Your task to perform on an android device: delete browsing data in the chrome app Image 0: 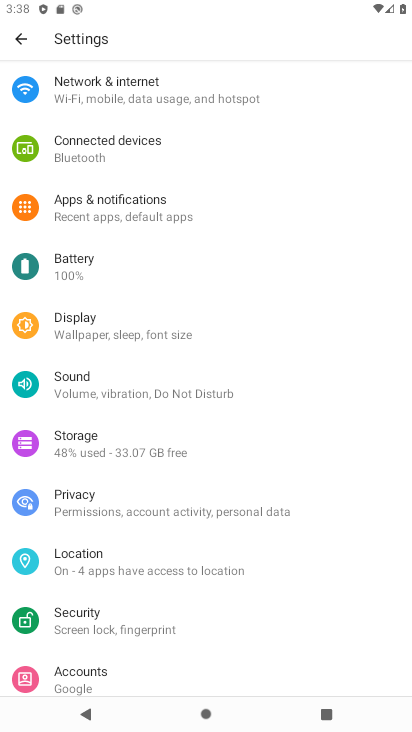
Step 0: press home button
Your task to perform on an android device: delete browsing data in the chrome app Image 1: 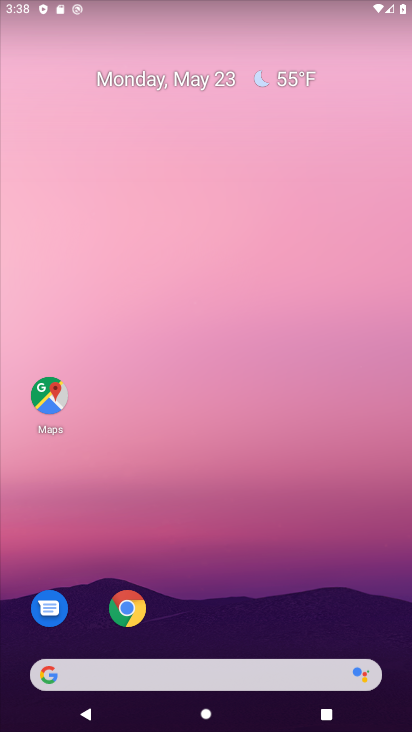
Step 1: click (113, 608)
Your task to perform on an android device: delete browsing data in the chrome app Image 2: 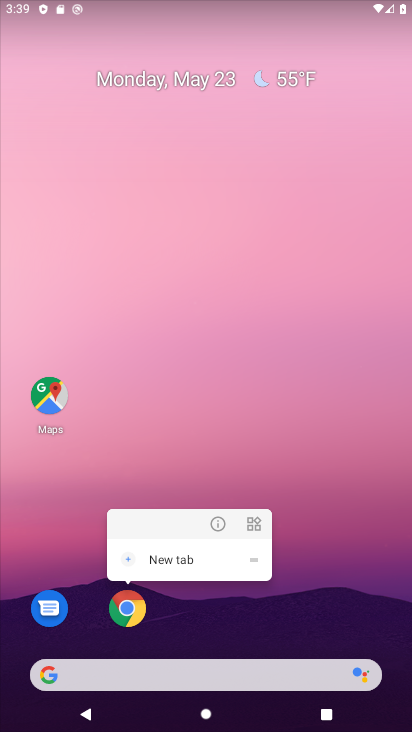
Step 2: click (129, 608)
Your task to perform on an android device: delete browsing data in the chrome app Image 3: 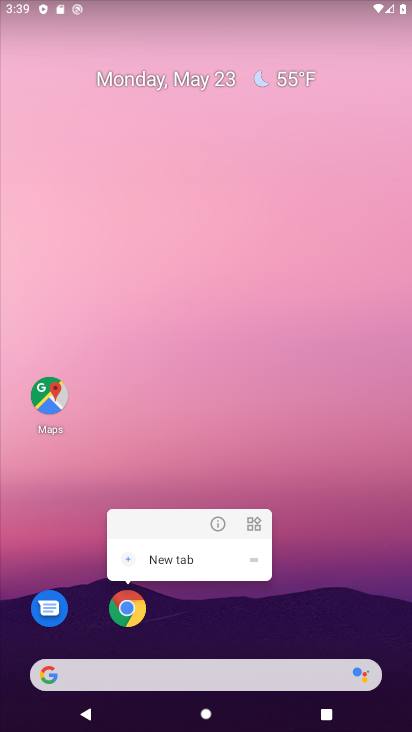
Step 3: click (124, 613)
Your task to perform on an android device: delete browsing data in the chrome app Image 4: 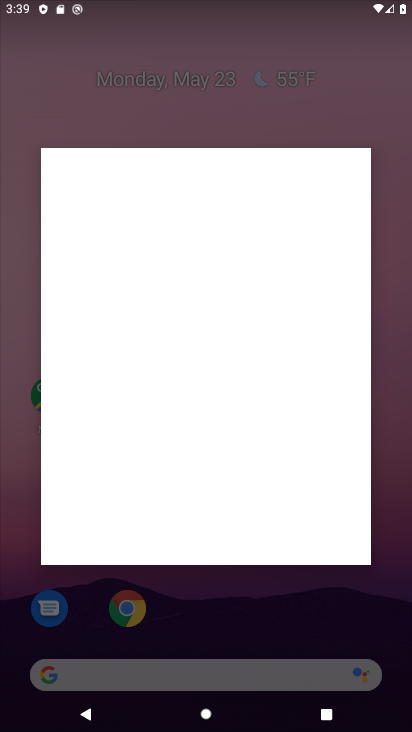
Step 4: click (408, 415)
Your task to perform on an android device: delete browsing data in the chrome app Image 5: 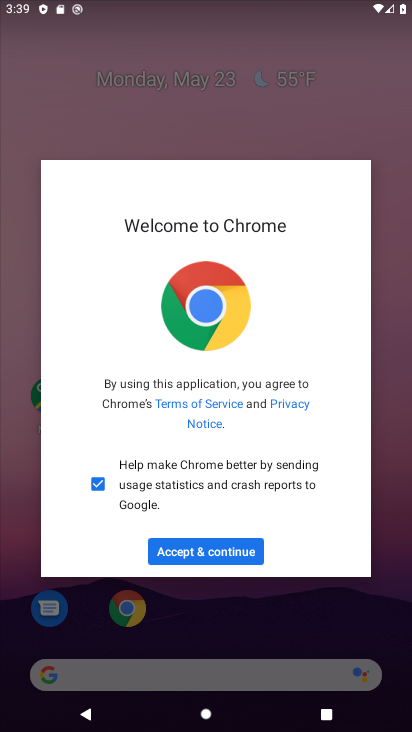
Step 5: press home button
Your task to perform on an android device: delete browsing data in the chrome app Image 6: 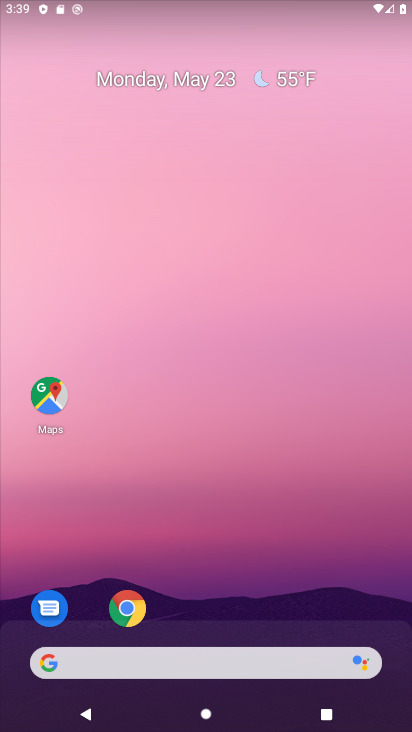
Step 6: click (136, 601)
Your task to perform on an android device: delete browsing data in the chrome app Image 7: 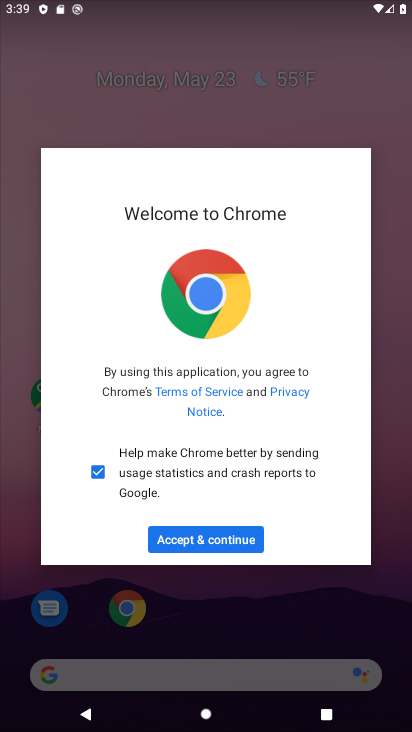
Step 7: click (235, 533)
Your task to perform on an android device: delete browsing data in the chrome app Image 8: 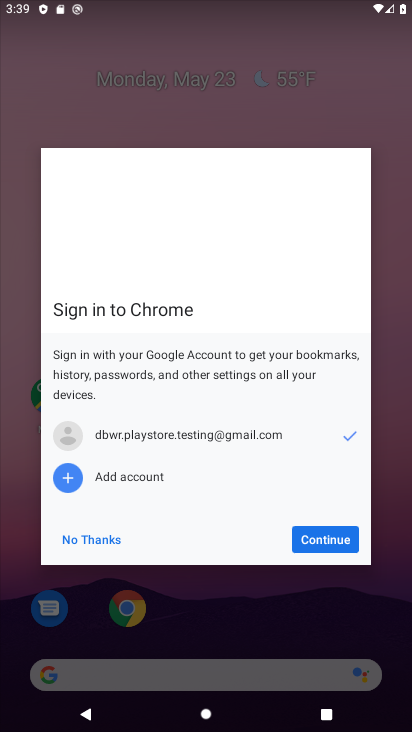
Step 8: click (76, 536)
Your task to perform on an android device: delete browsing data in the chrome app Image 9: 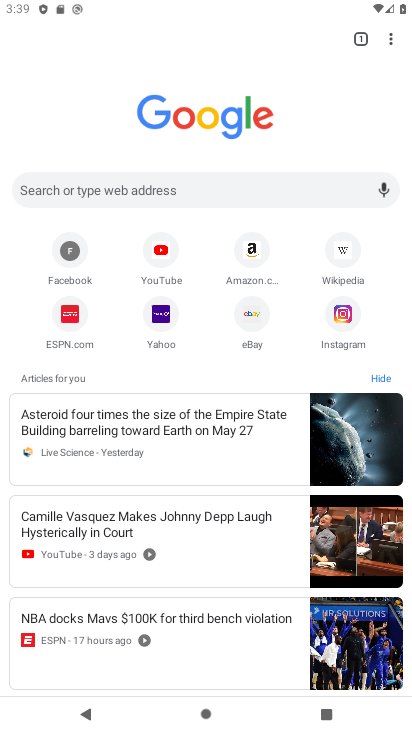
Step 9: click (390, 34)
Your task to perform on an android device: delete browsing data in the chrome app Image 10: 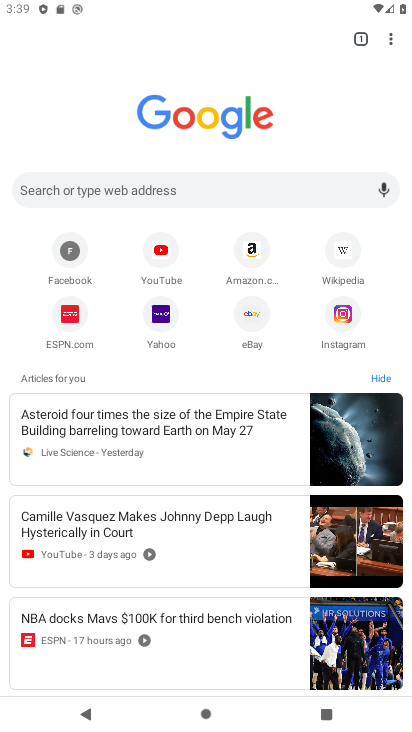
Step 10: click (394, 40)
Your task to perform on an android device: delete browsing data in the chrome app Image 11: 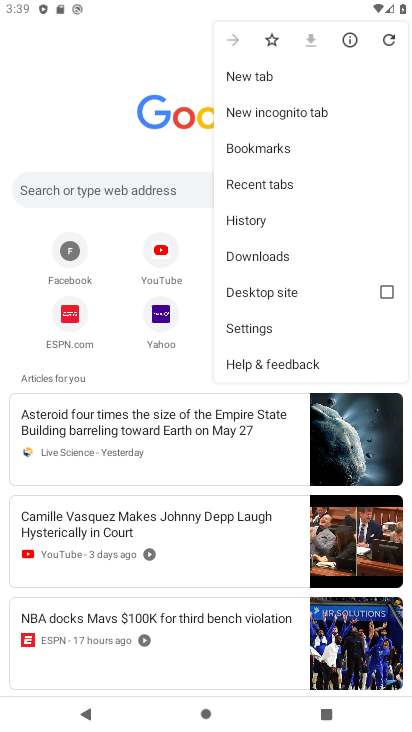
Step 11: click (260, 207)
Your task to perform on an android device: delete browsing data in the chrome app Image 12: 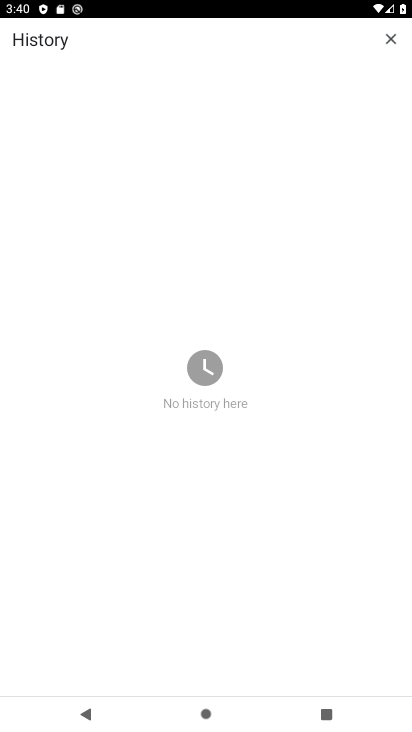
Step 12: task complete